Your task to perform on an android device: toggle airplane mode Image 0: 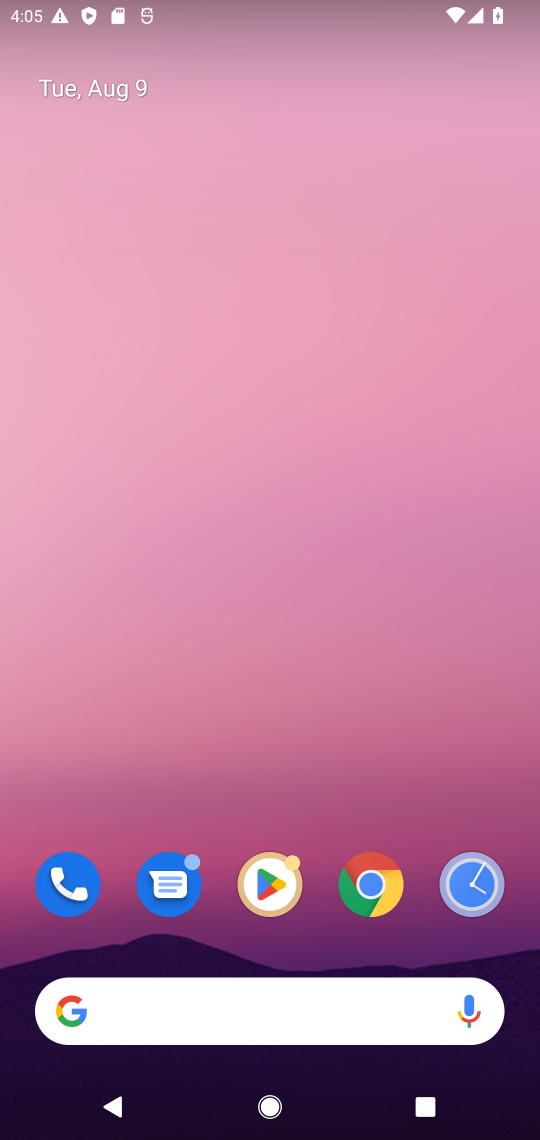
Step 0: drag from (266, 801) to (275, 19)
Your task to perform on an android device: toggle airplane mode Image 1: 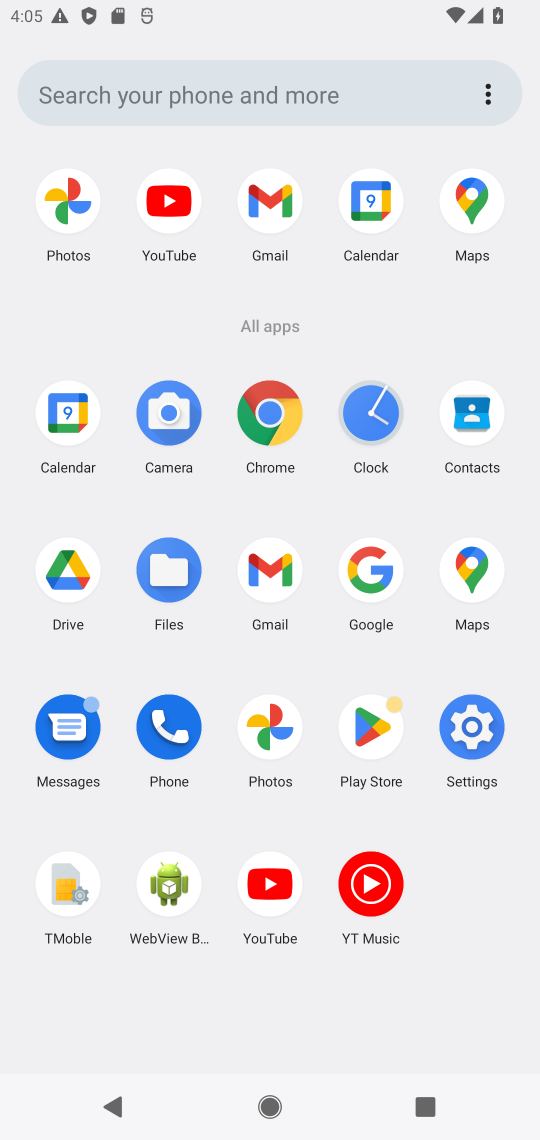
Step 1: click (480, 729)
Your task to perform on an android device: toggle airplane mode Image 2: 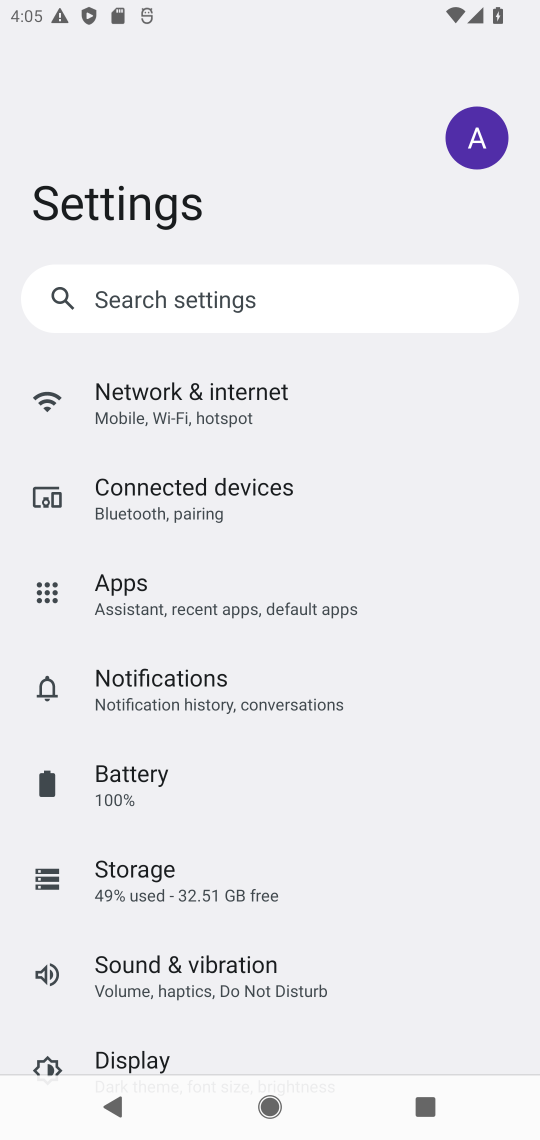
Step 2: click (148, 384)
Your task to perform on an android device: toggle airplane mode Image 3: 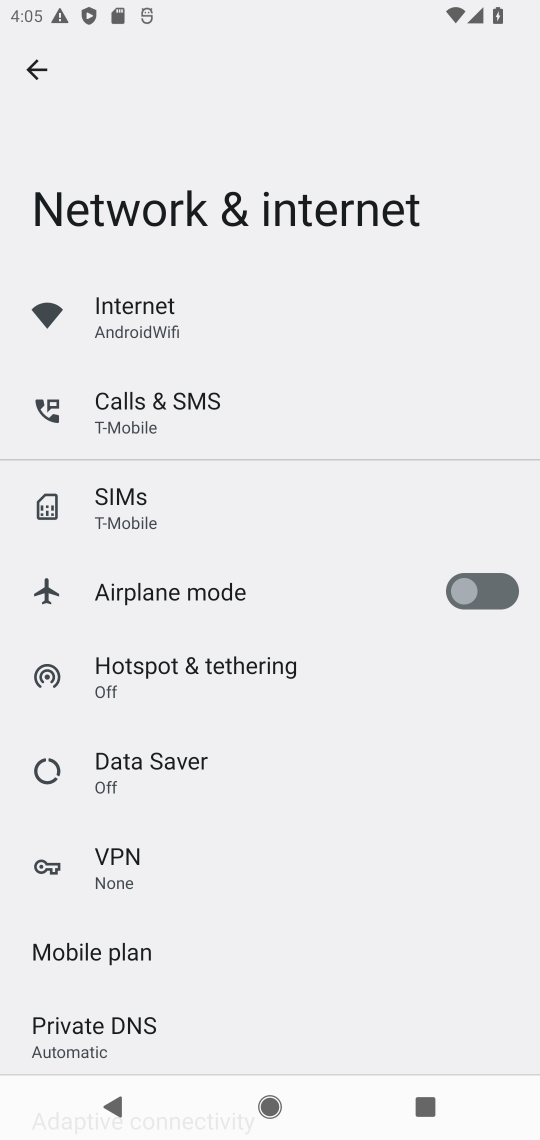
Step 3: click (466, 588)
Your task to perform on an android device: toggle airplane mode Image 4: 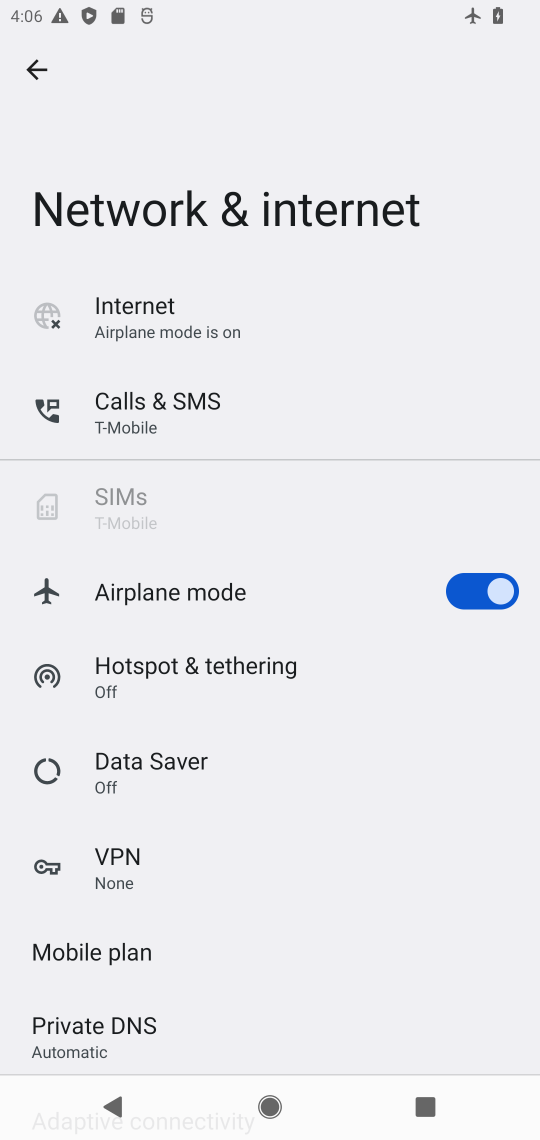
Step 4: task complete